Your task to perform on an android device: Open calendar and show me the third week of next month Image 0: 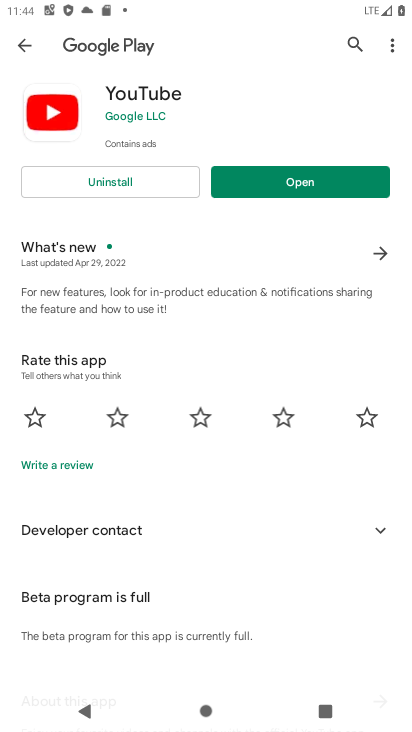
Step 0: press home button
Your task to perform on an android device: Open calendar and show me the third week of next month Image 1: 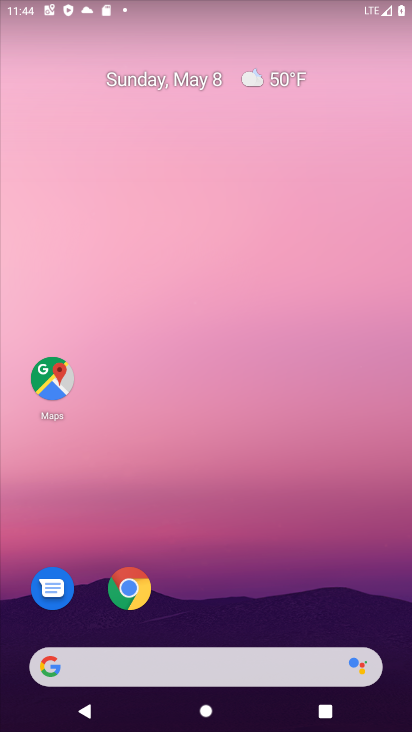
Step 1: drag from (272, 590) to (239, 25)
Your task to perform on an android device: Open calendar and show me the third week of next month Image 2: 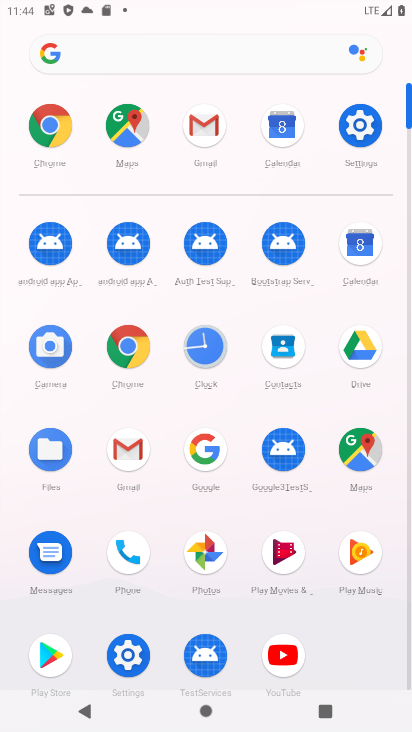
Step 2: click (365, 250)
Your task to perform on an android device: Open calendar and show me the third week of next month Image 3: 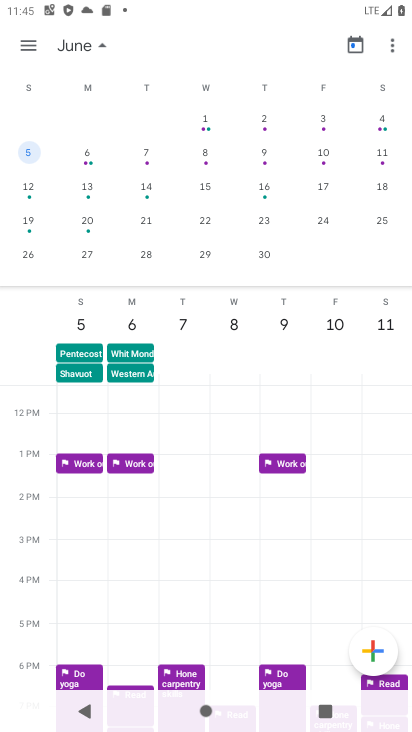
Step 3: click (33, 180)
Your task to perform on an android device: Open calendar and show me the third week of next month Image 4: 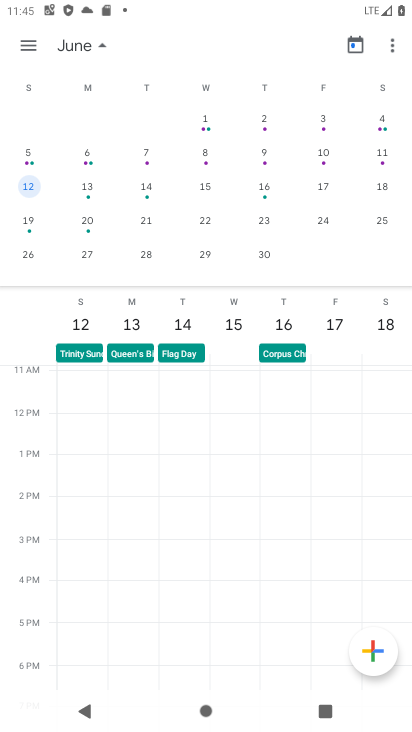
Step 4: task complete